Your task to perform on an android device: turn on sleep mode Image 0: 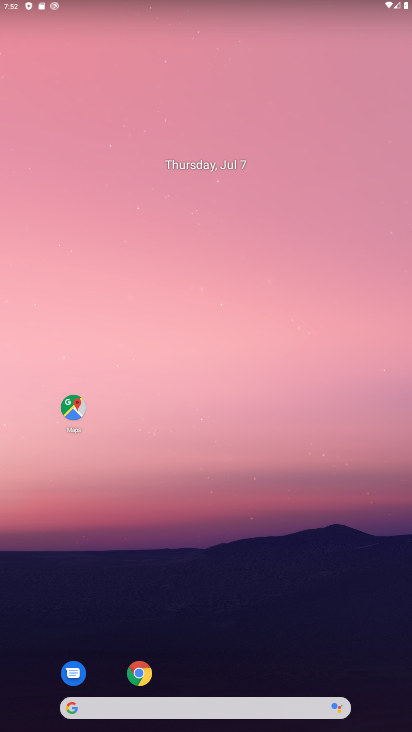
Step 0: drag from (256, 637) to (272, 95)
Your task to perform on an android device: turn on sleep mode Image 1: 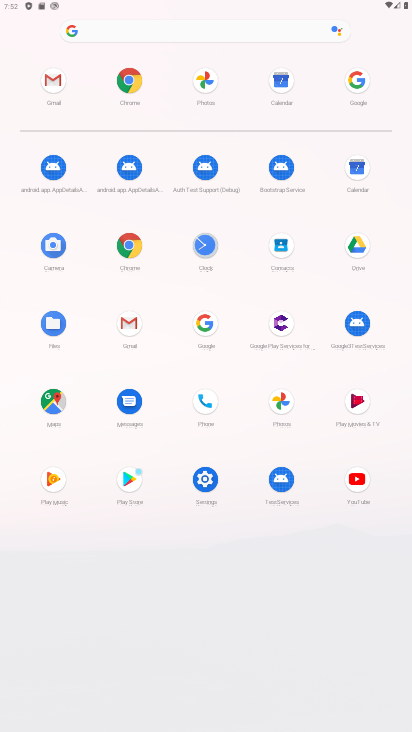
Step 1: click (203, 479)
Your task to perform on an android device: turn on sleep mode Image 2: 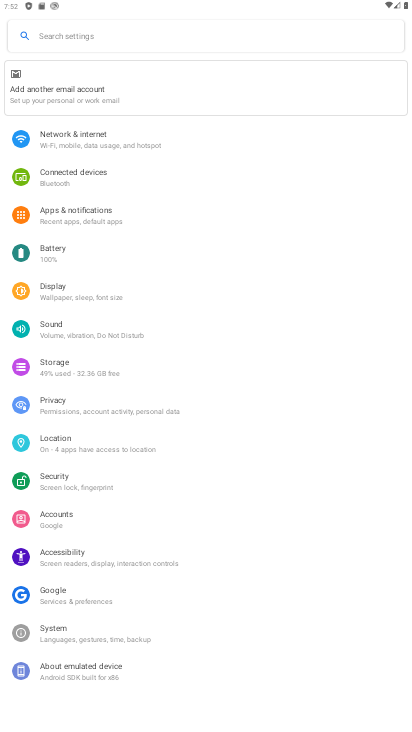
Step 2: click (68, 221)
Your task to perform on an android device: turn on sleep mode Image 3: 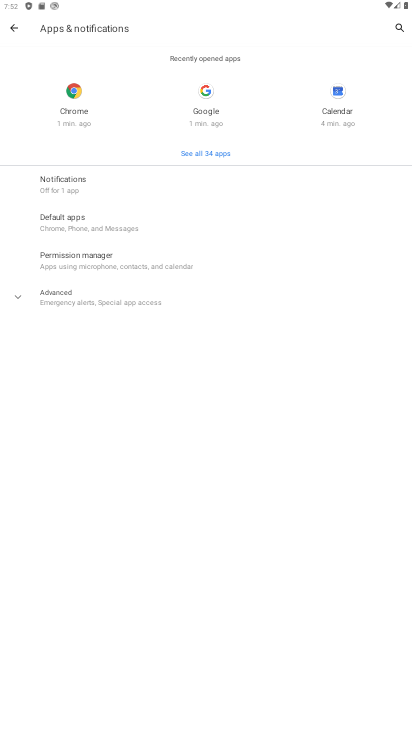
Step 3: press back button
Your task to perform on an android device: turn on sleep mode Image 4: 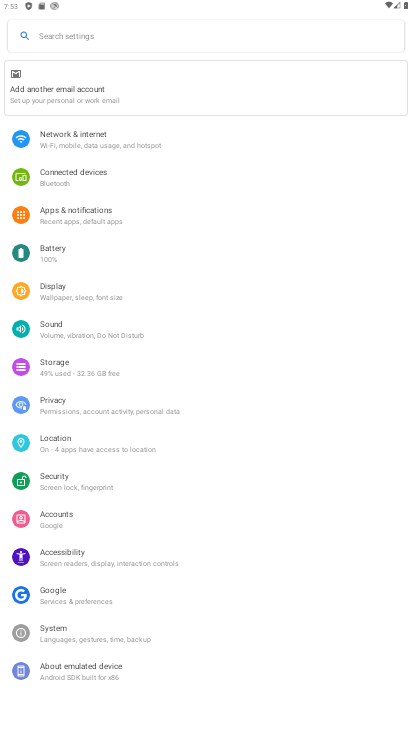
Step 4: click (70, 291)
Your task to perform on an android device: turn on sleep mode Image 5: 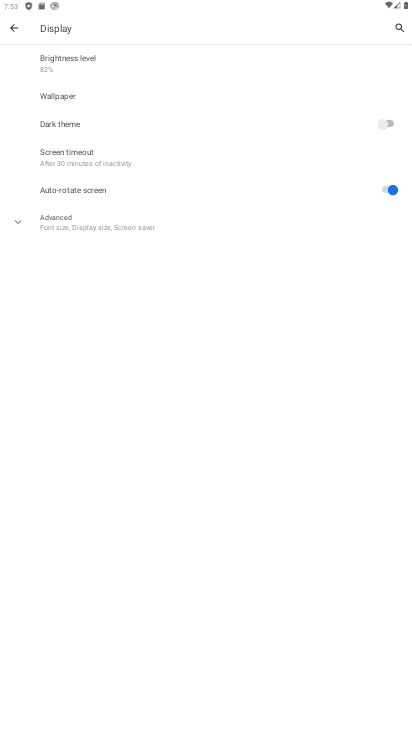
Step 5: click (77, 230)
Your task to perform on an android device: turn on sleep mode Image 6: 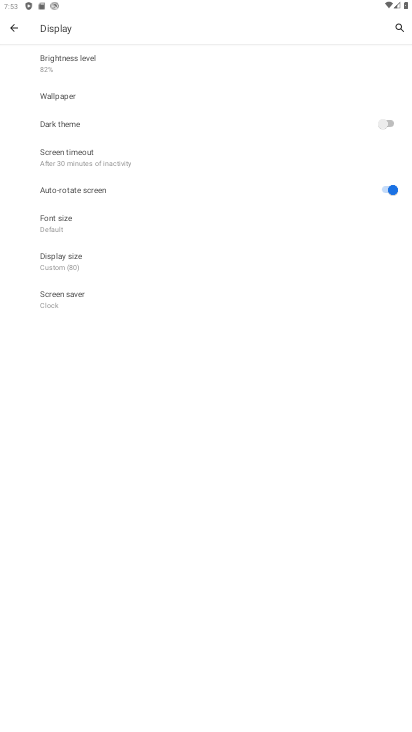
Step 6: click (60, 153)
Your task to perform on an android device: turn on sleep mode Image 7: 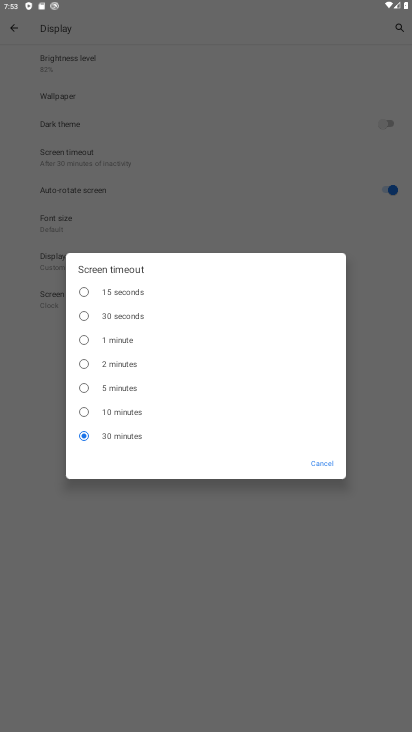
Step 7: click (320, 461)
Your task to perform on an android device: turn on sleep mode Image 8: 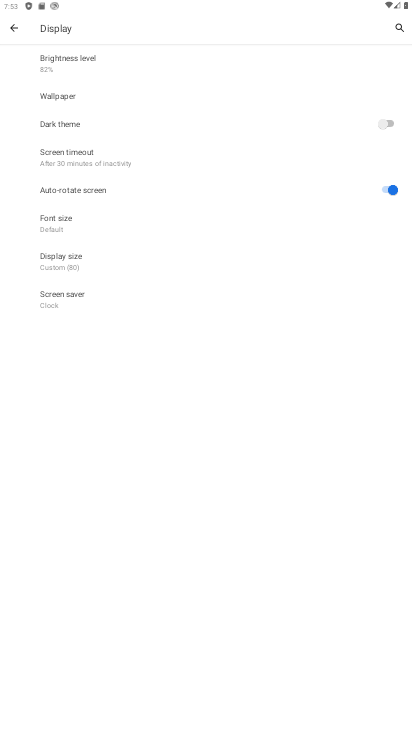
Step 8: task complete